Your task to perform on an android device: Search for Mexican restaurants on Maps Image 0: 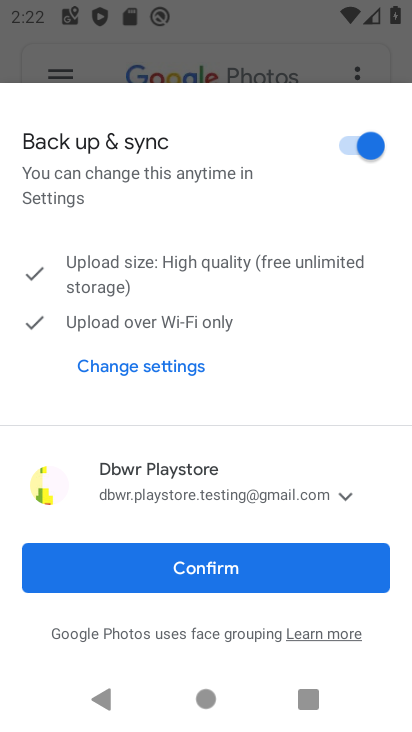
Step 0: press home button
Your task to perform on an android device: Search for Mexican restaurants on Maps Image 1: 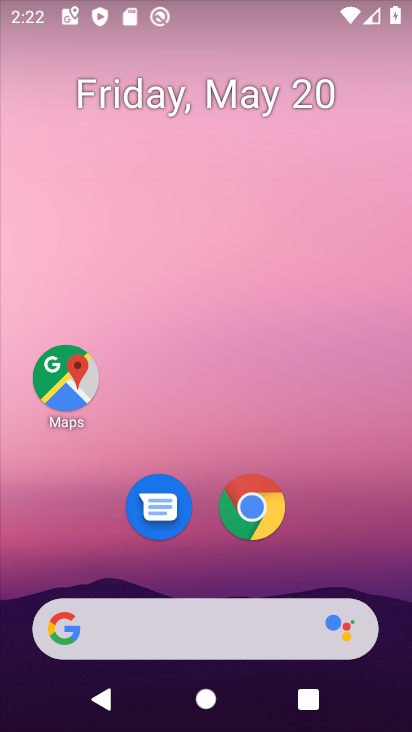
Step 1: drag from (226, 727) to (225, 88)
Your task to perform on an android device: Search for Mexican restaurants on Maps Image 2: 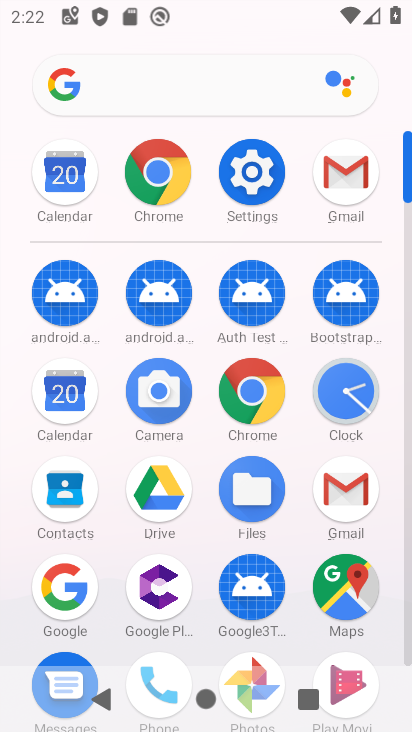
Step 2: click (345, 585)
Your task to perform on an android device: Search for Mexican restaurants on Maps Image 3: 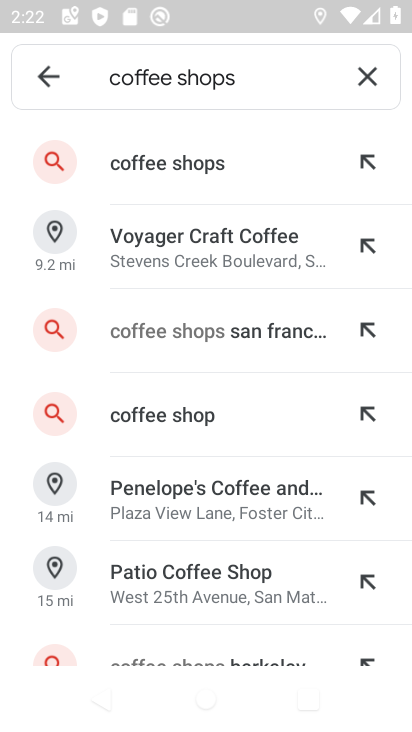
Step 3: click (358, 72)
Your task to perform on an android device: Search for Mexican restaurants on Maps Image 4: 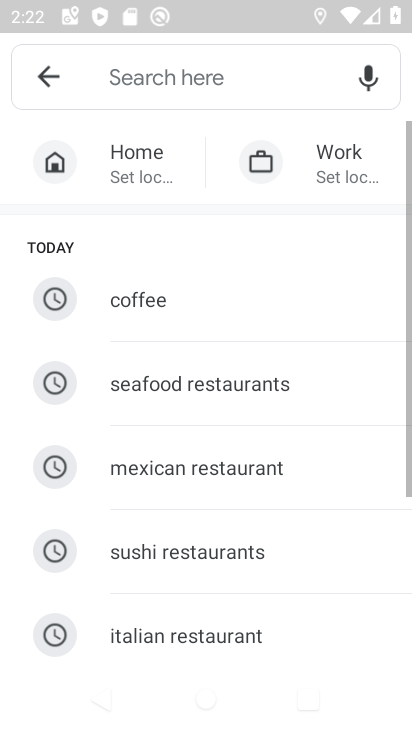
Step 4: click (199, 80)
Your task to perform on an android device: Search for Mexican restaurants on Maps Image 5: 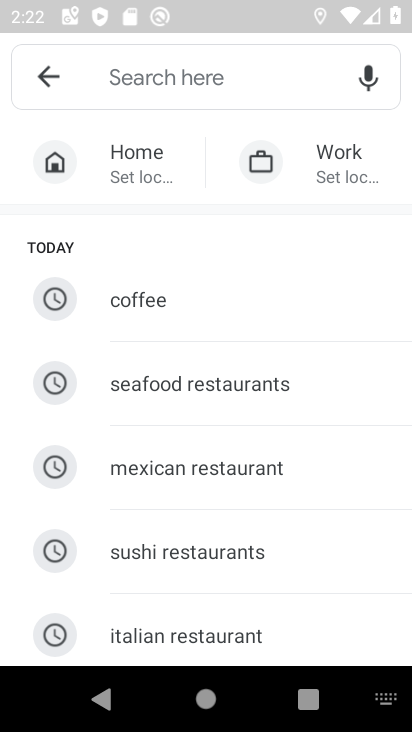
Step 5: type "Mexican restaurants"
Your task to perform on an android device: Search for Mexican restaurants on Maps Image 6: 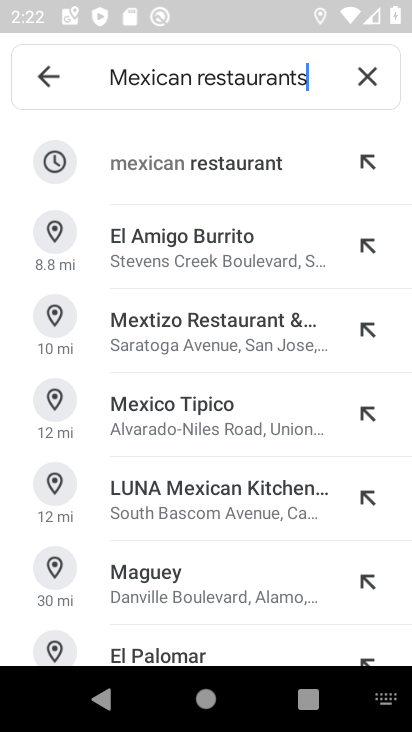
Step 6: click (155, 161)
Your task to perform on an android device: Search for Mexican restaurants on Maps Image 7: 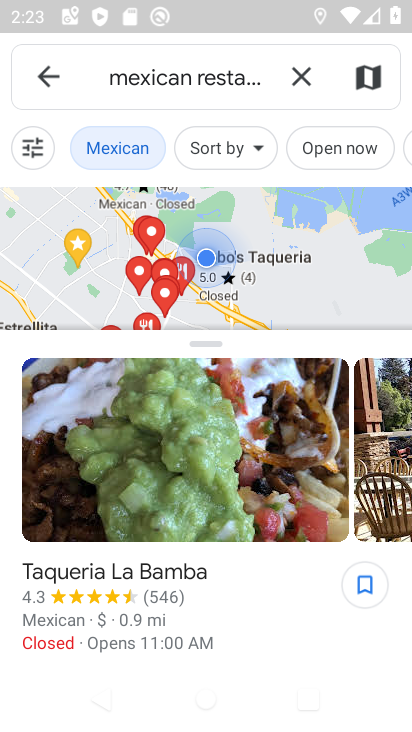
Step 7: task complete